Your task to perform on an android device: Open accessibility settings Image 0: 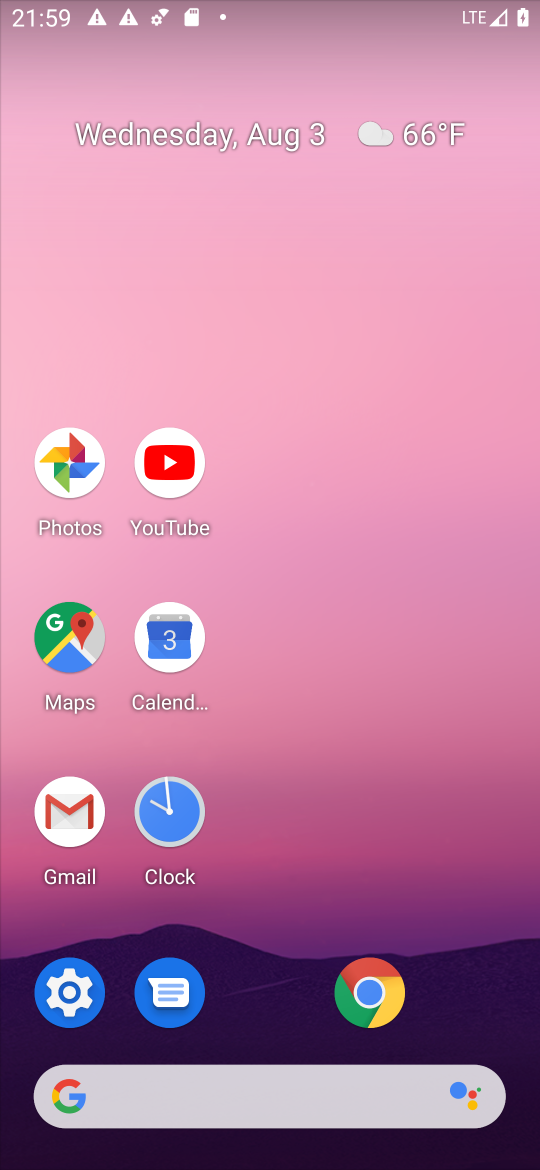
Step 0: click (78, 995)
Your task to perform on an android device: Open accessibility settings Image 1: 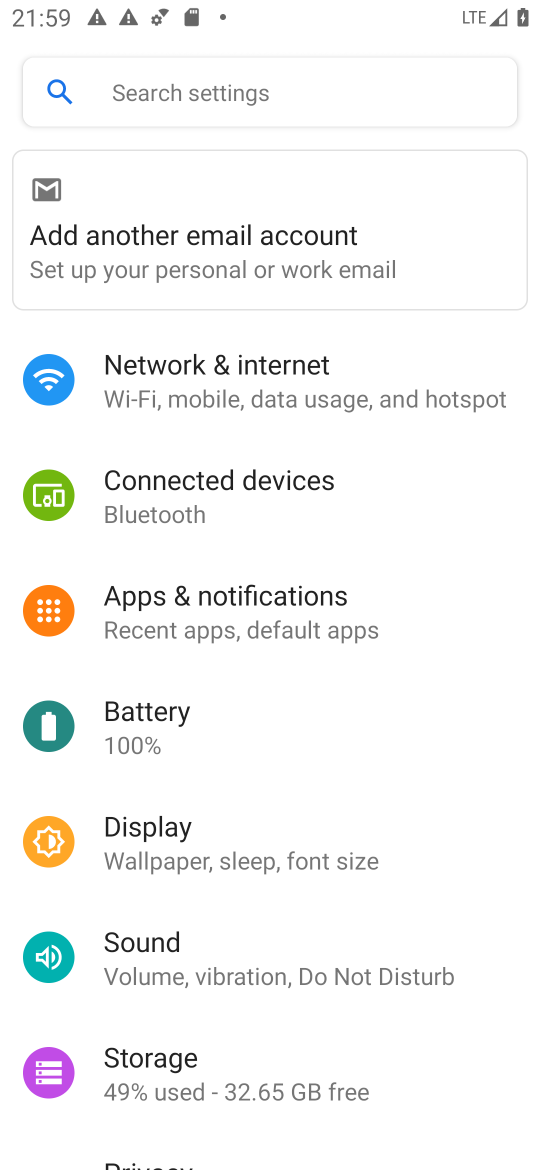
Step 1: drag from (267, 1019) to (298, 376)
Your task to perform on an android device: Open accessibility settings Image 2: 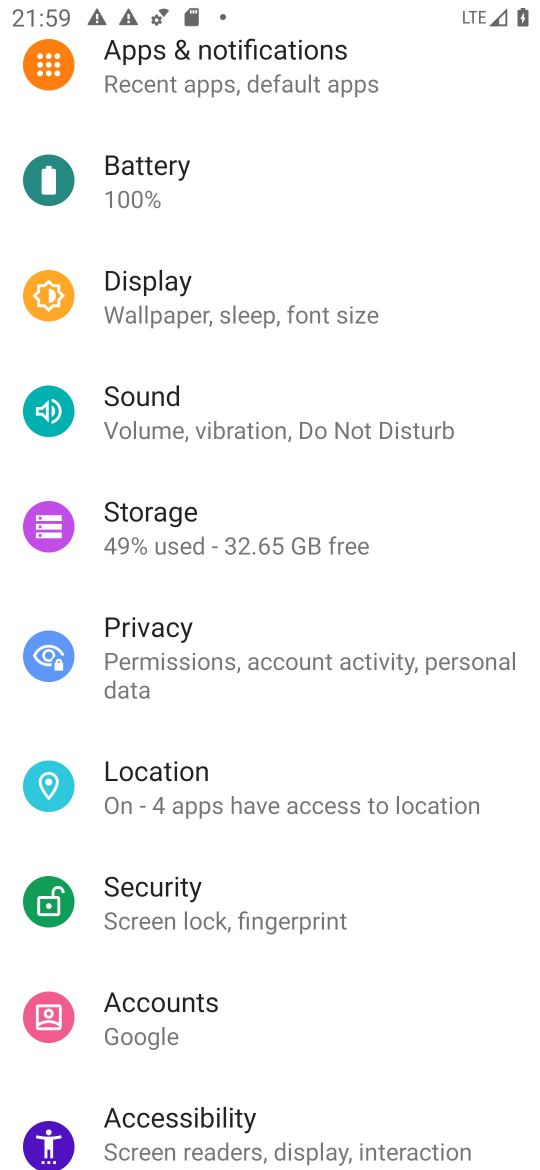
Step 2: click (179, 1118)
Your task to perform on an android device: Open accessibility settings Image 3: 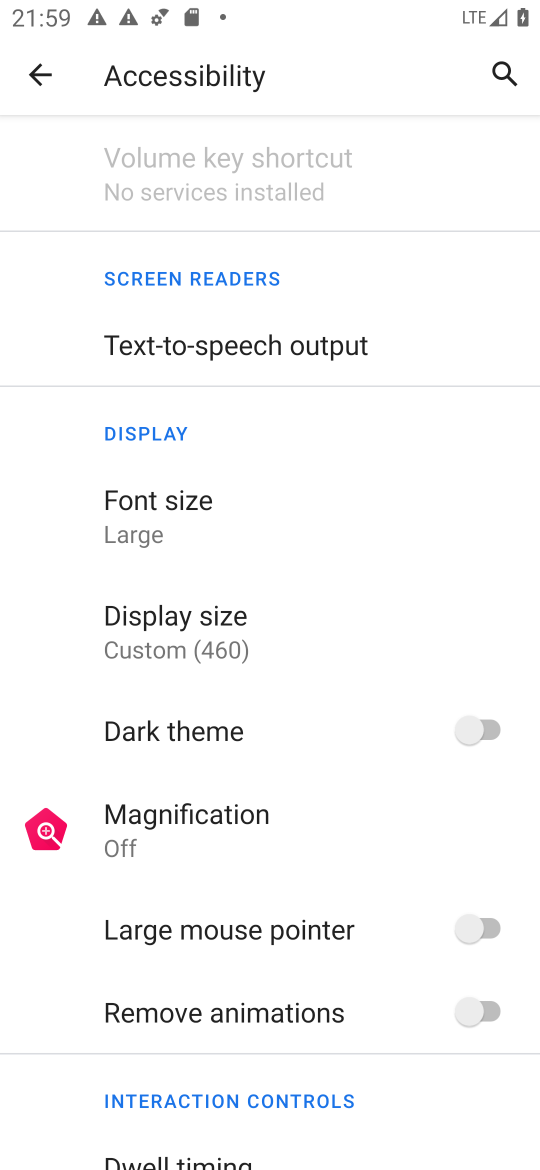
Step 3: task complete